Your task to perform on an android device: Show me recent news Image 0: 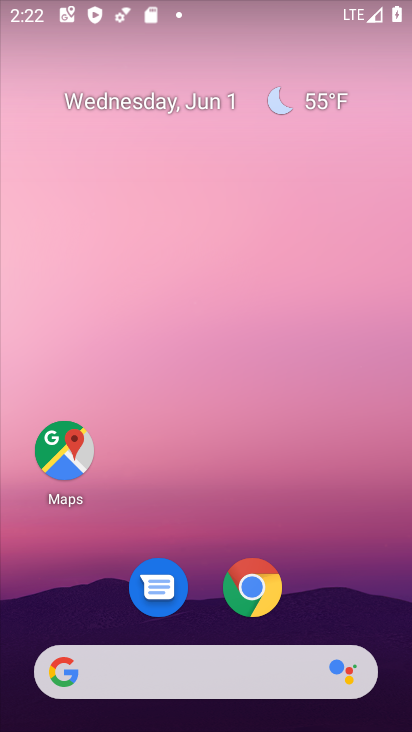
Step 0: drag from (21, 308) to (400, 303)
Your task to perform on an android device: Show me recent news Image 1: 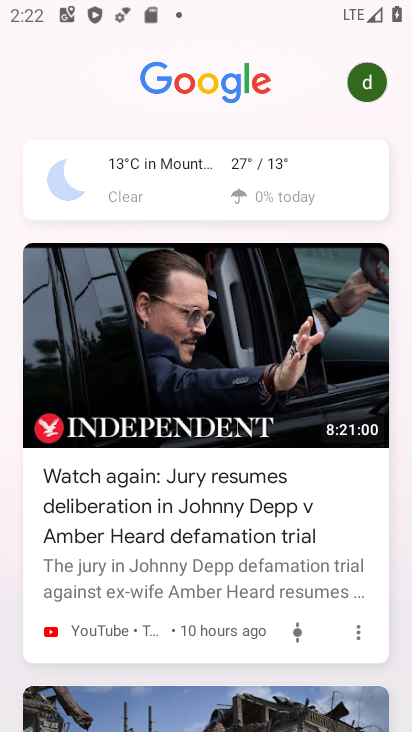
Step 1: task complete